Your task to perform on an android device: Open ESPN.com Image 0: 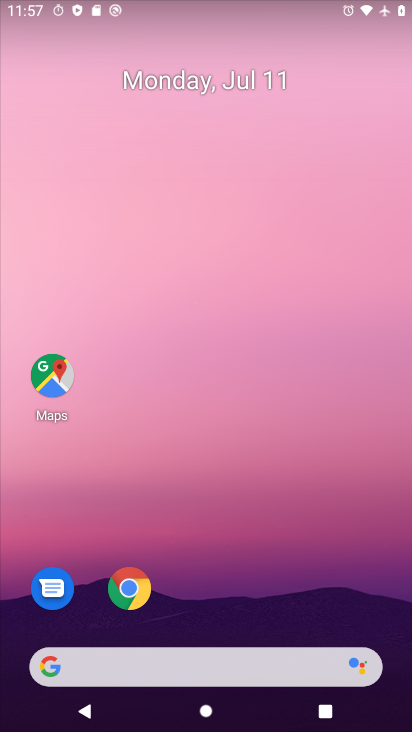
Step 0: click (132, 591)
Your task to perform on an android device: Open ESPN.com Image 1: 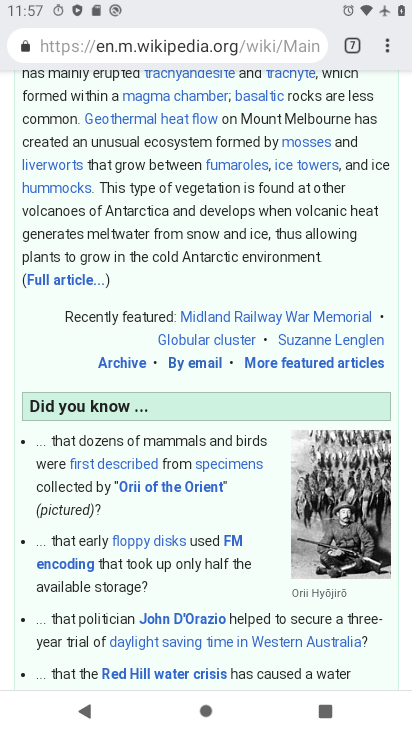
Step 1: drag from (384, 38) to (253, 91)
Your task to perform on an android device: Open ESPN.com Image 2: 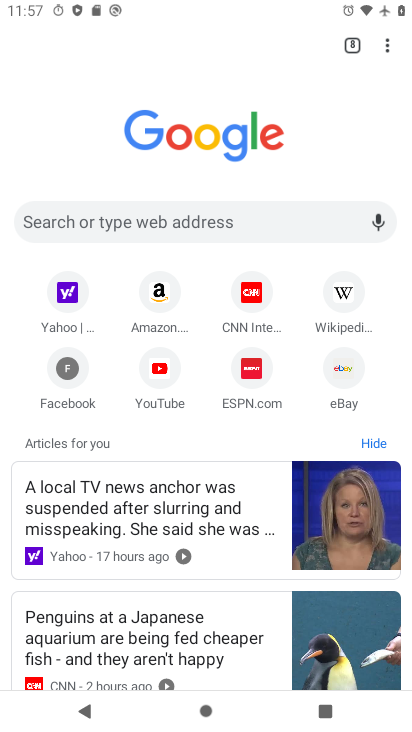
Step 2: click (258, 372)
Your task to perform on an android device: Open ESPN.com Image 3: 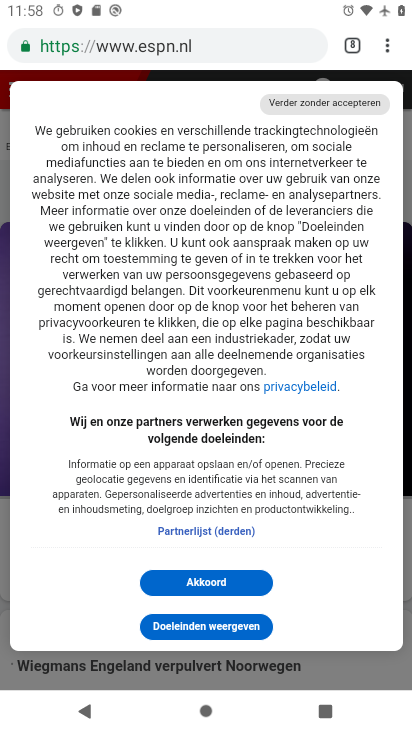
Step 3: click (192, 587)
Your task to perform on an android device: Open ESPN.com Image 4: 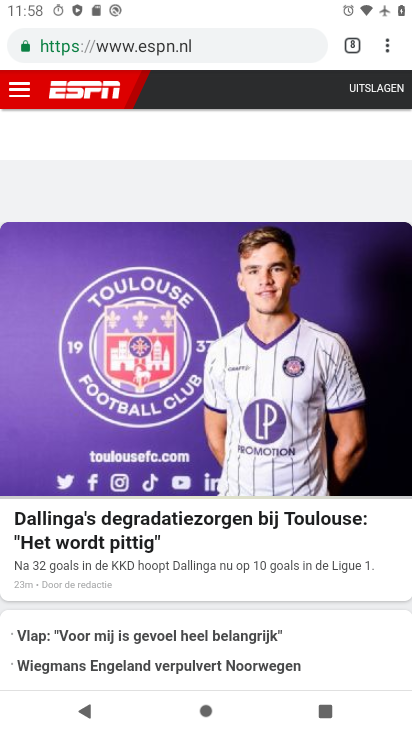
Step 4: task complete